Your task to perform on an android device: toggle show notifications on the lock screen Image 0: 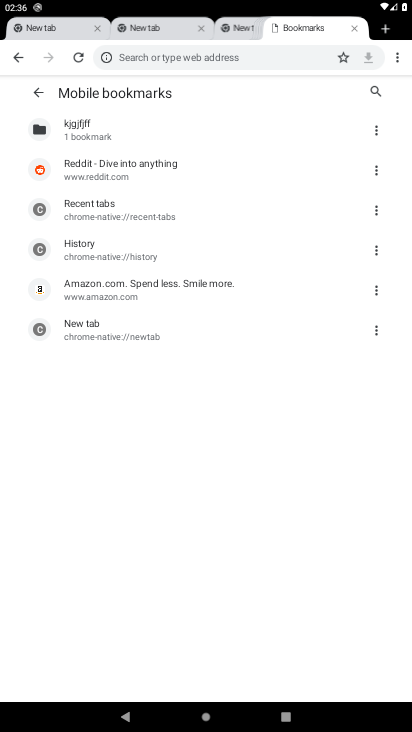
Step 0: press home button
Your task to perform on an android device: toggle show notifications on the lock screen Image 1: 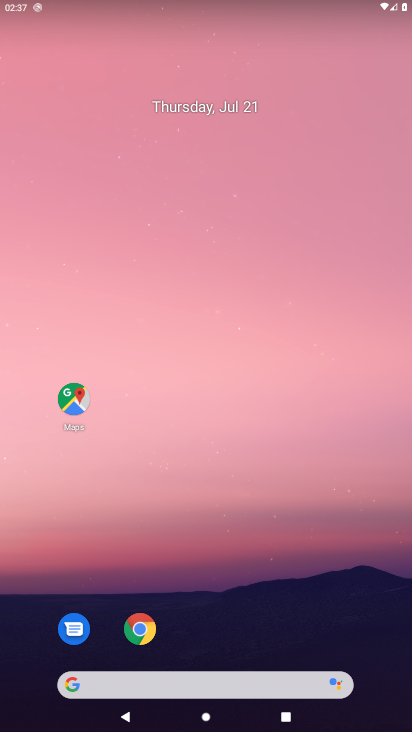
Step 1: drag from (18, 692) to (169, 260)
Your task to perform on an android device: toggle show notifications on the lock screen Image 2: 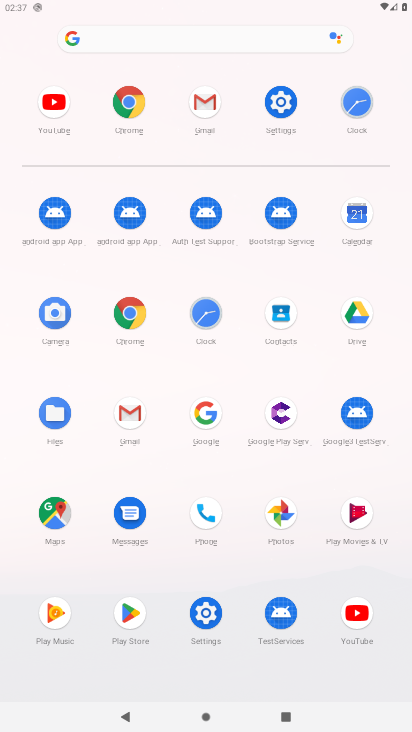
Step 2: click (203, 618)
Your task to perform on an android device: toggle show notifications on the lock screen Image 3: 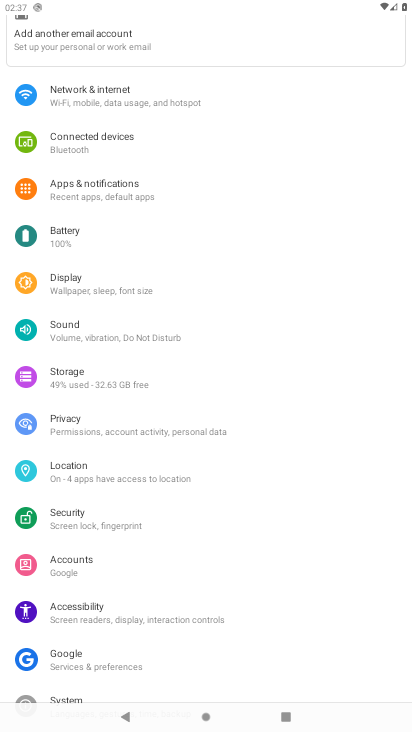
Step 3: click (126, 193)
Your task to perform on an android device: toggle show notifications on the lock screen Image 4: 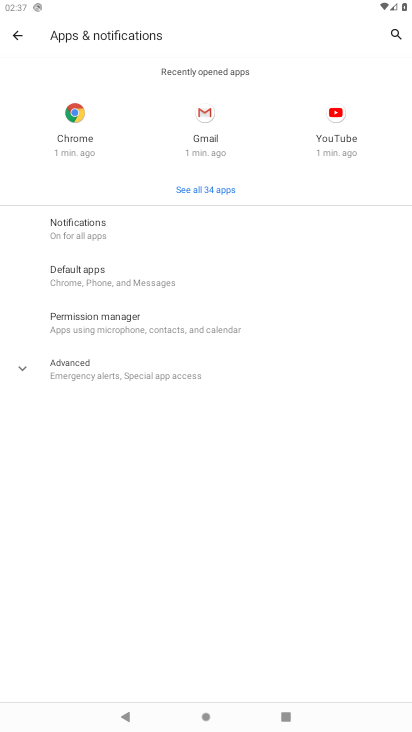
Step 4: click (133, 366)
Your task to perform on an android device: toggle show notifications on the lock screen Image 5: 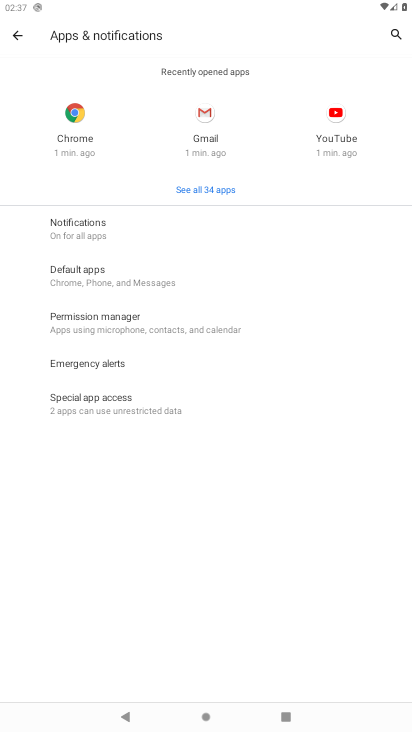
Step 5: click (103, 403)
Your task to perform on an android device: toggle show notifications on the lock screen Image 6: 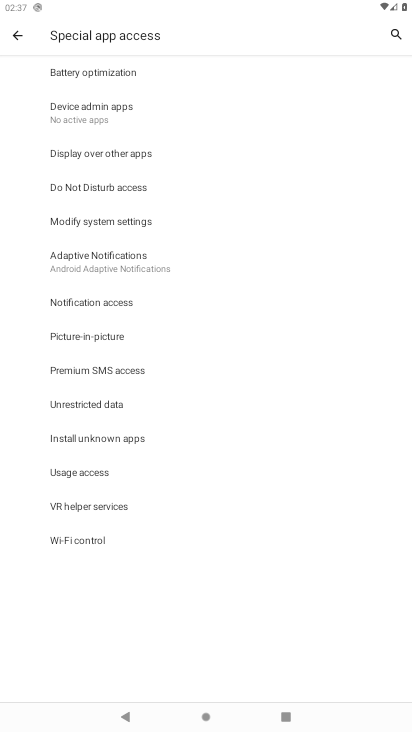
Step 6: click (12, 28)
Your task to perform on an android device: toggle show notifications on the lock screen Image 7: 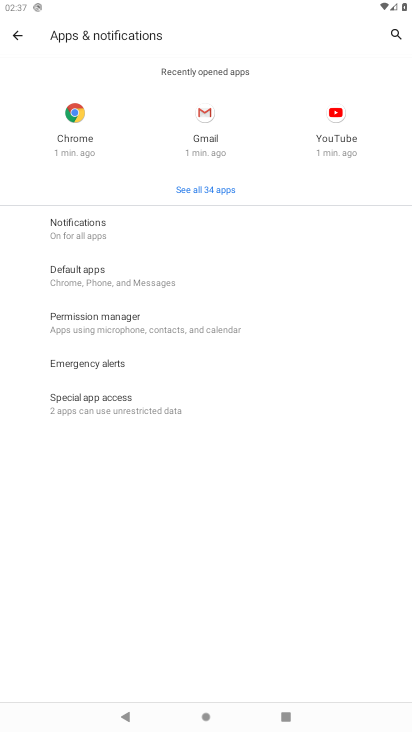
Step 7: click (90, 239)
Your task to perform on an android device: toggle show notifications on the lock screen Image 8: 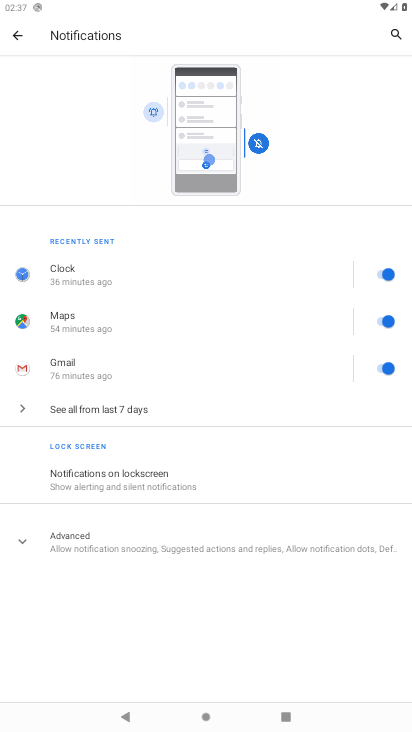
Step 8: click (107, 478)
Your task to perform on an android device: toggle show notifications on the lock screen Image 9: 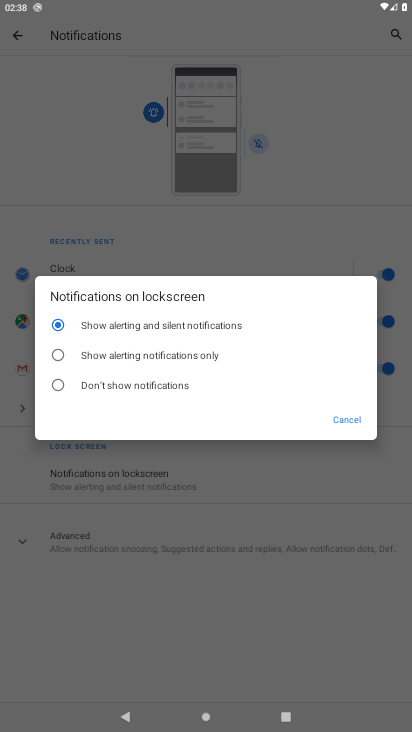
Step 9: task complete